Your task to perform on an android device: turn off sleep mode Image 0: 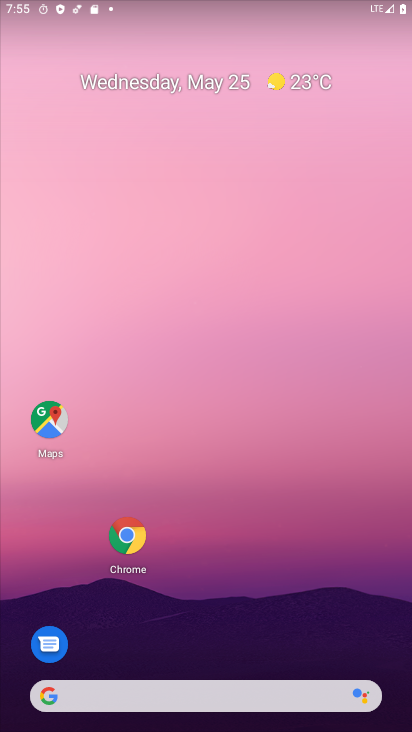
Step 0: drag from (210, 702) to (209, 86)
Your task to perform on an android device: turn off sleep mode Image 1: 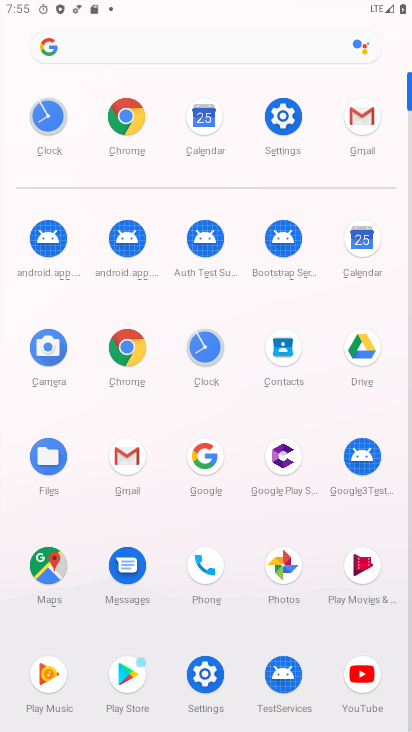
Step 1: click (206, 682)
Your task to perform on an android device: turn off sleep mode Image 2: 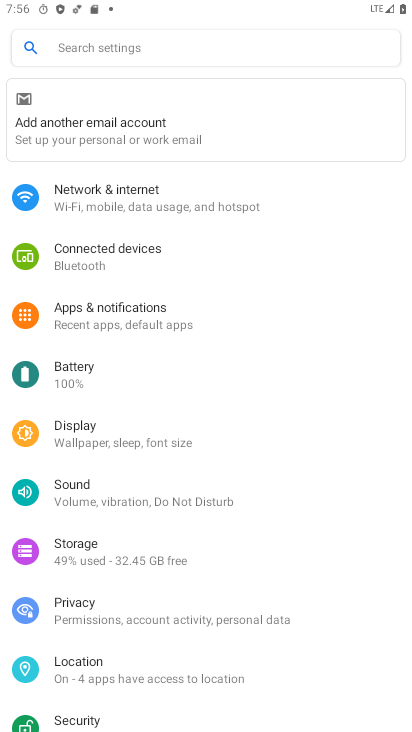
Step 2: click (103, 437)
Your task to perform on an android device: turn off sleep mode Image 3: 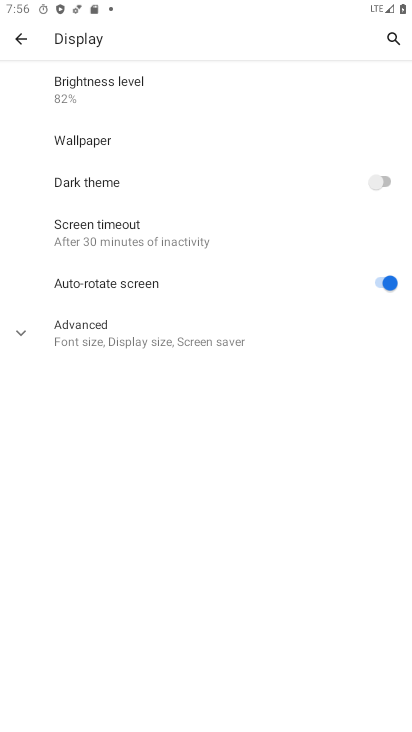
Step 3: click (131, 336)
Your task to perform on an android device: turn off sleep mode Image 4: 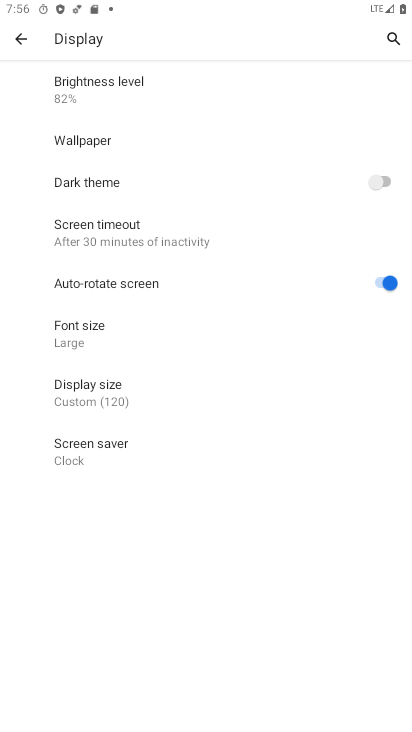
Step 4: task complete